Your task to perform on an android device: Search for Mexican restaurants on Maps Image 0: 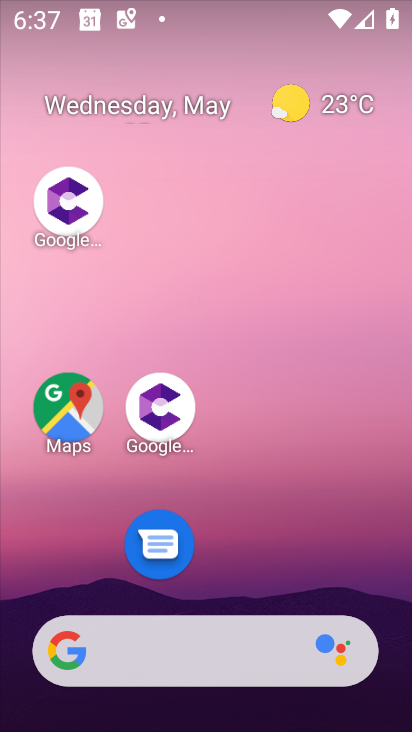
Step 0: click (67, 406)
Your task to perform on an android device: Search for Mexican restaurants on Maps Image 1: 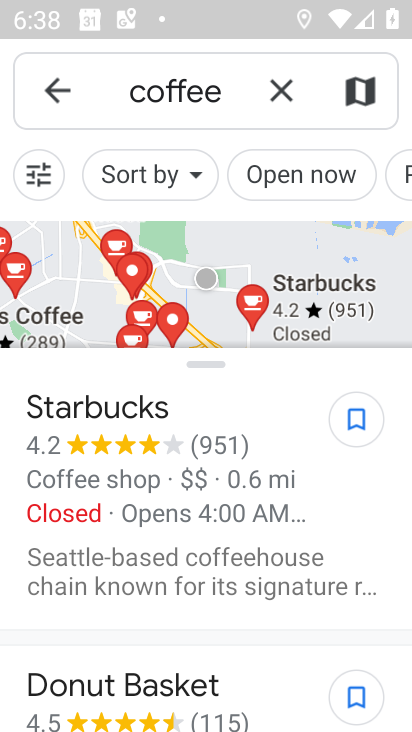
Step 1: click (287, 89)
Your task to perform on an android device: Search for Mexican restaurants on Maps Image 2: 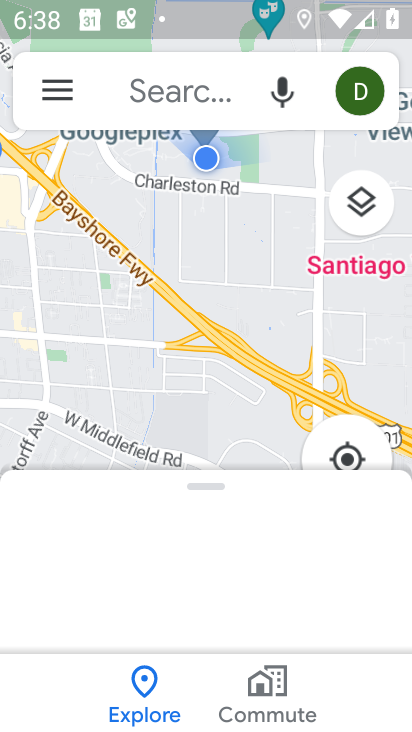
Step 2: click (190, 88)
Your task to perform on an android device: Search for Mexican restaurants on Maps Image 3: 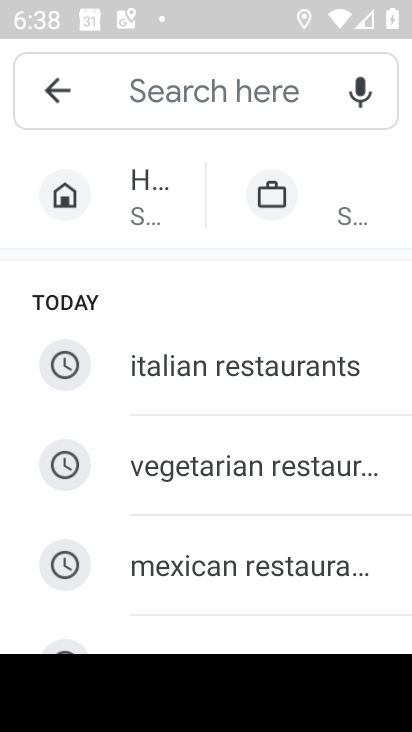
Step 3: click (294, 560)
Your task to perform on an android device: Search for Mexican restaurants on Maps Image 4: 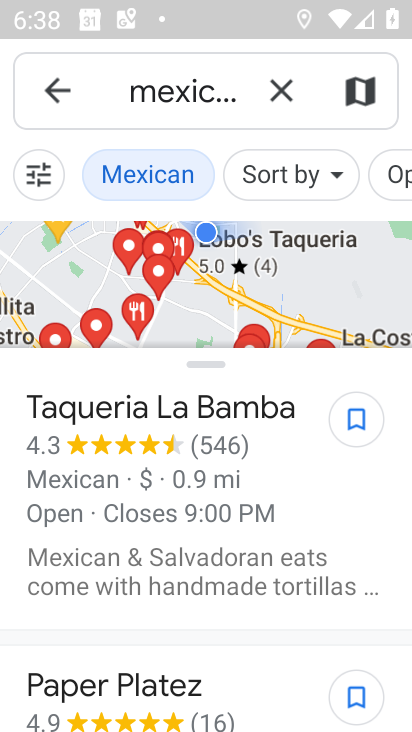
Step 4: task complete